Your task to perform on an android device: Set the phone to "Do not disturb". Image 0: 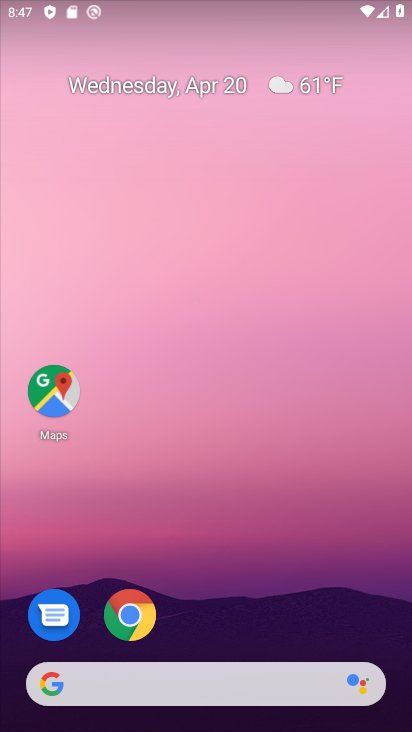
Step 0: drag from (316, 476) to (336, 297)
Your task to perform on an android device: Set the phone to "Do not disturb". Image 1: 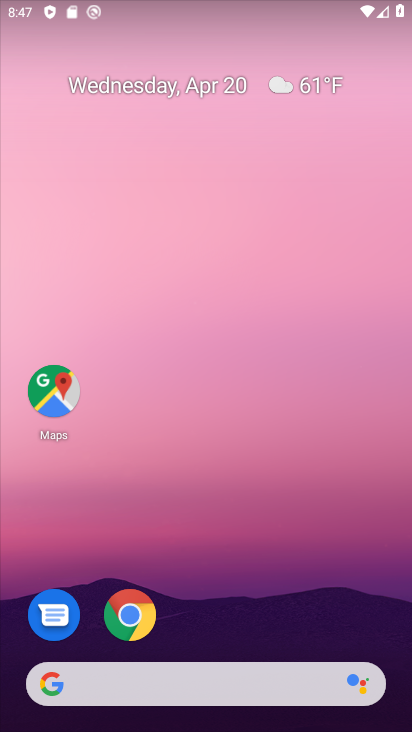
Step 1: click (249, 141)
Your task to perform on an android device: Set the phone to "Do not disturb". Image 2: 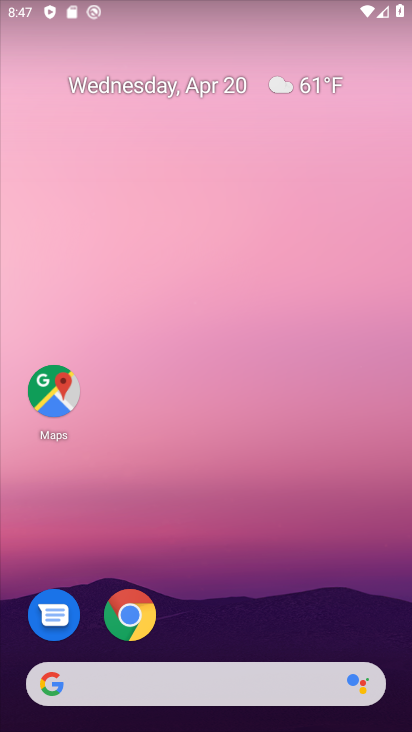
Step 2: drag from (226, 3) to (203, 449)
Your task to perform on an android device: Set the phone to "Do not disturb". Image 3: 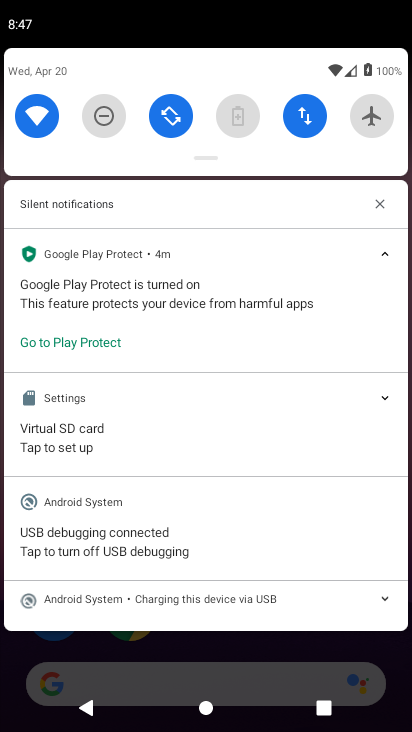
Step 3: click (105, 109)
Your task to perform on an android device: Set the phone to "Do not disturb". Image 4: 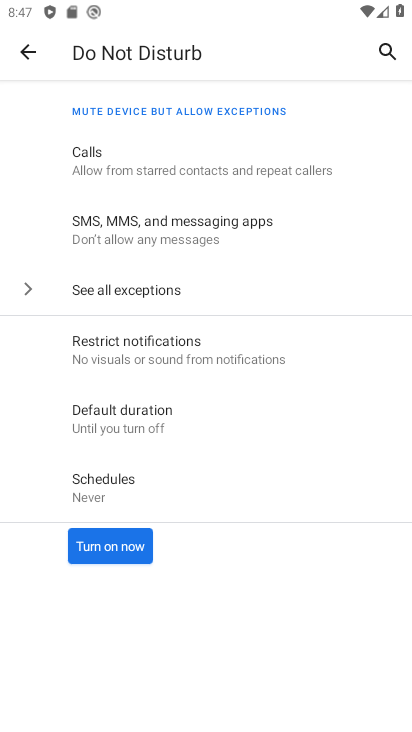
Step 4: click (119, 547)
Your task to perform on an android device: Set the phone to "Do not disturb". Image 5: 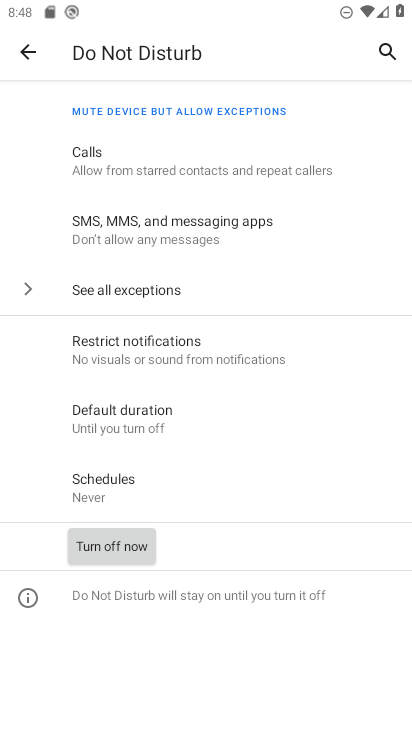
Step 5: task complete